Your task to perform on an android device: Do I have any events tomorrow? Image 0: 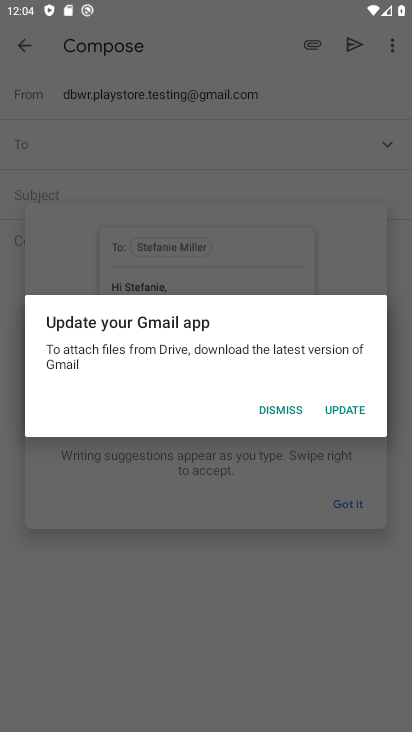
Step 0: press home button
Your task to perform on an android device: Do I have any events tomorrow? Image 1: 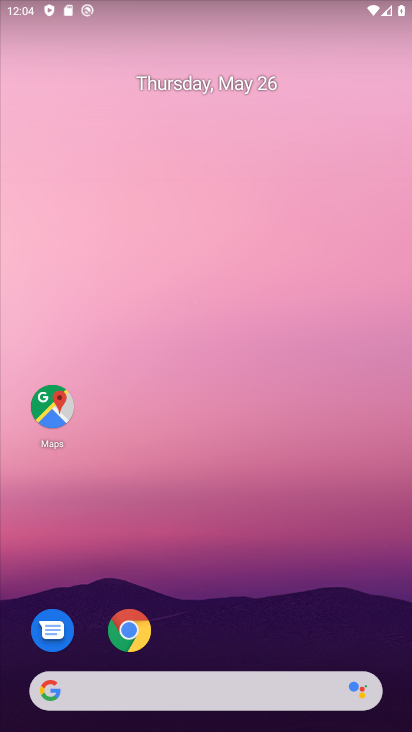
Step 1: drag from (271, 472) to (241, 84)
Your task to perform on an android device: Do I have any events tomorrow? Image 2: 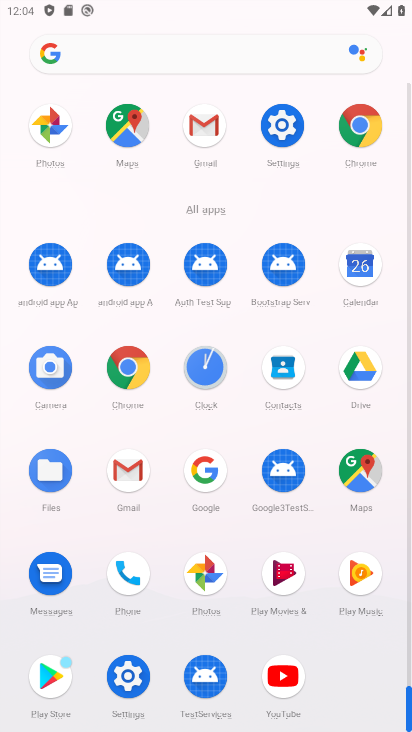
Step 2: click (364, 280)
Your task to perform on an android device: Do I have any events tomorrow? Image 3: 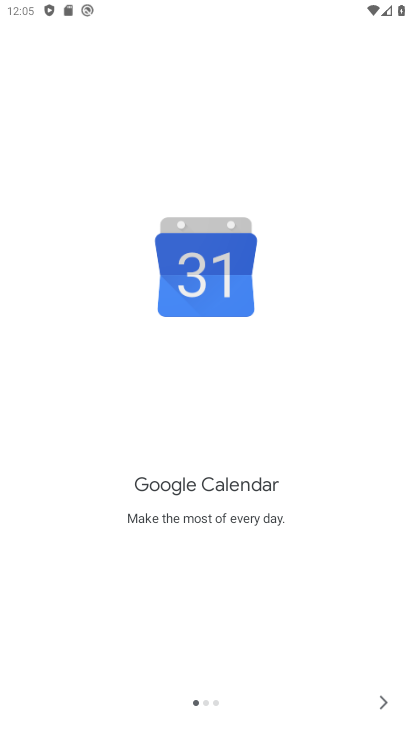
Step 3: click (387, 704)
Your task to perform on an android device: Do I have any events tomorrow? Image 4: 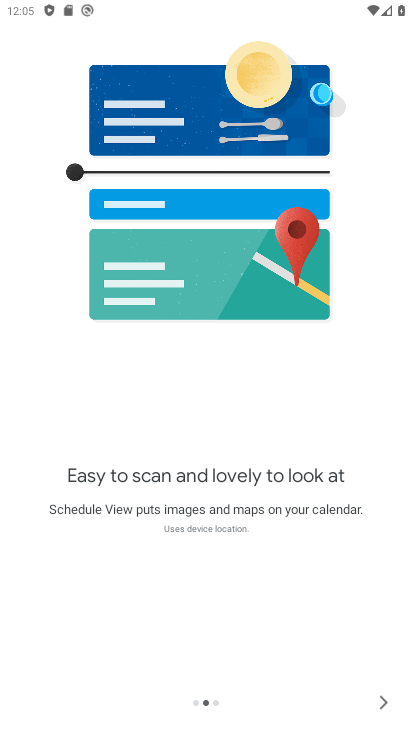
Step 4: click (389, 691)
Your task to perform on an android device: Do I have any events tomorrow? Image 5: 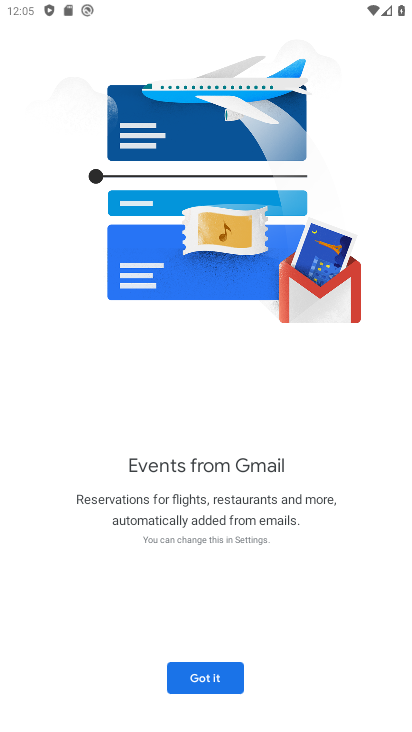
Step 5: click (207, 688)
Your task to perform on an android device: Do I have any events tomorrow? Image 6: 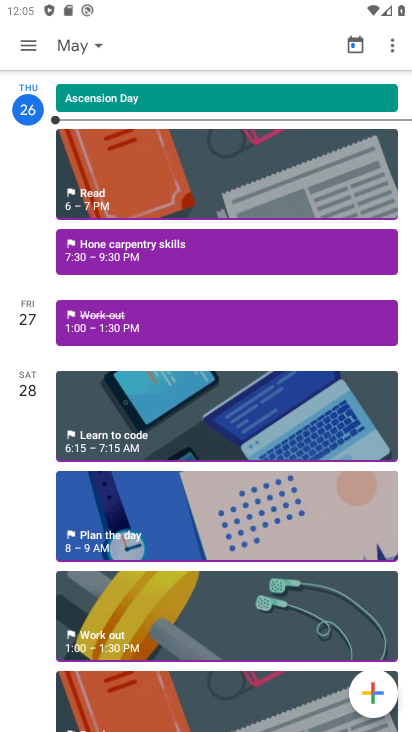
Step 6: click (75, 62)
Your task to perform on an android device: Do I have any events tomorrow? Image 7: 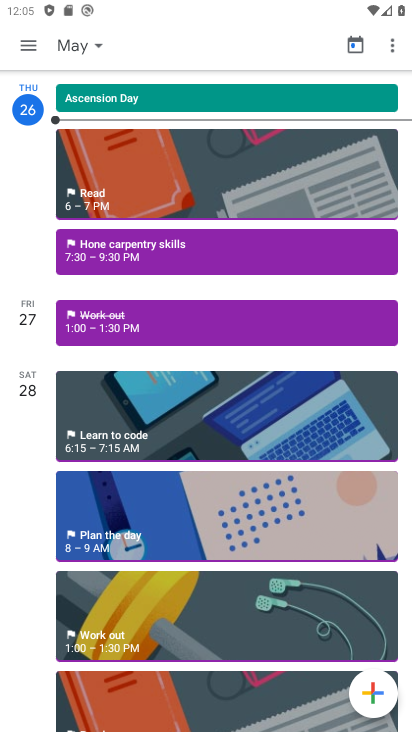
Step 7: click (81, 45)
Your task to perform on an android device: Do I have any events tomorrow? Image 8: 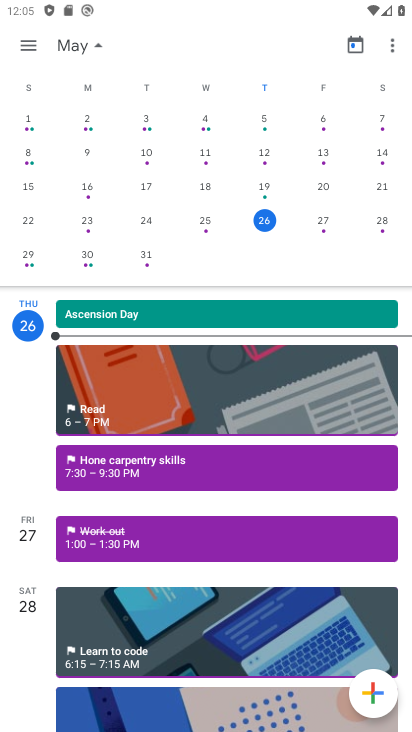
Step 8: click (327, 220)
Your task to perform on an android device: Do I have any events tomorrow? Image 9: 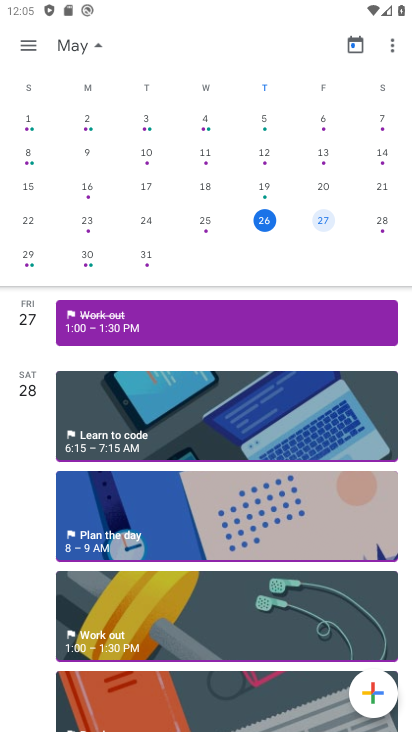
Step 9: task complete